Your task to perform on an android device: empty trash in google photos Image 0: 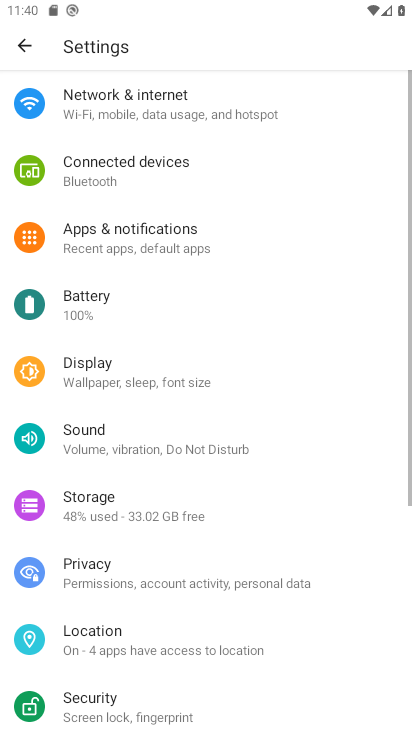
Step 0: press home button
Your task to perform on an android device: empty trash in google photos Image 1: 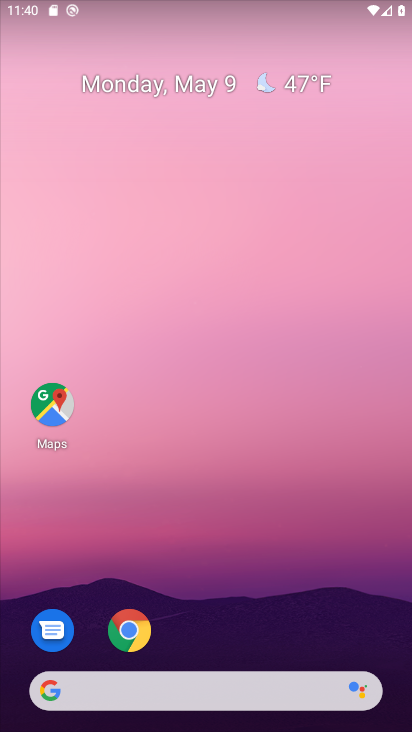
Step 1: drag from (208, 648) to (80, 165)
Your task to perform on an android device: empty trash in google photos Image 2: 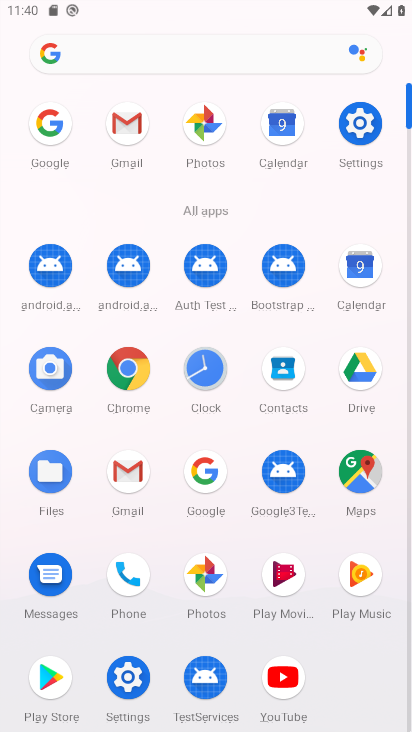
Step 2: click (223, 128)
Your task to perform on an android device: empty trash in google photos Image 3: 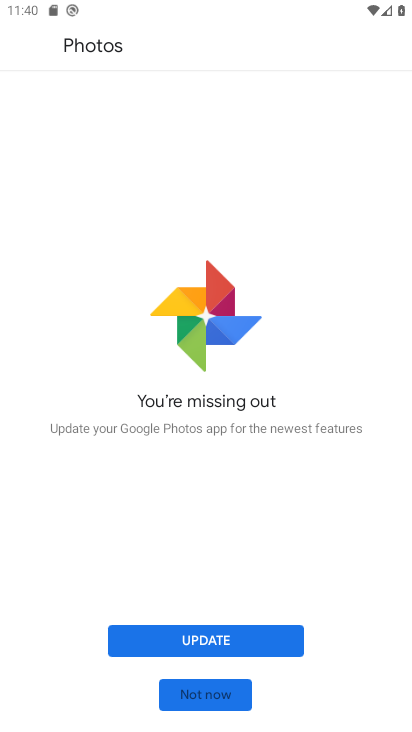
Step 3: click (219, 701)
Your task to perform on an android device: empty trash in google photos Image 4: 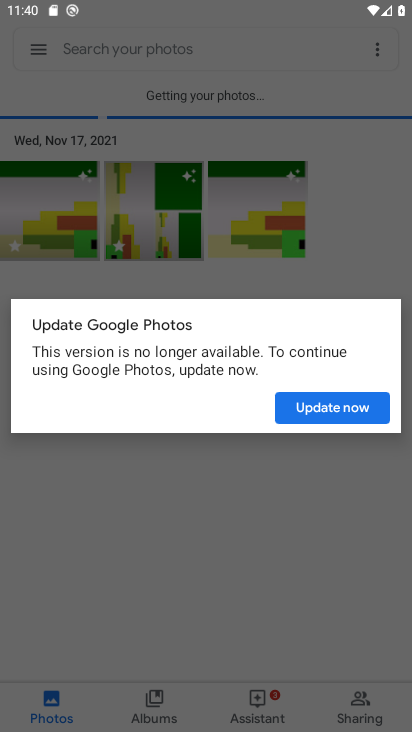
Step 4: press back button
Your task to perform on an android device: empty trash in google photos Image 5: 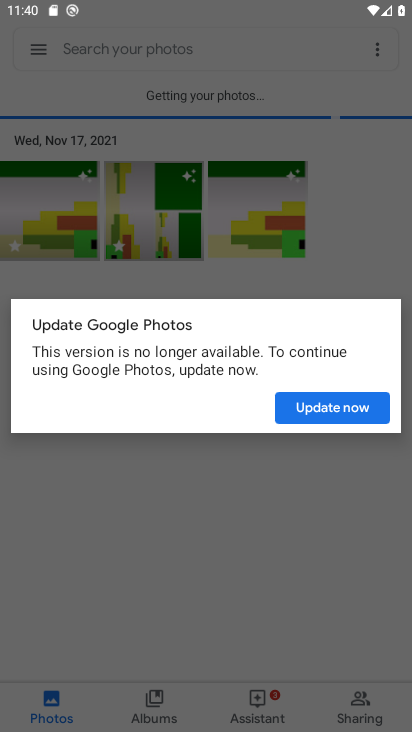
Step 5: click (240, 418)
Your task to perform on an android device: empty trash in google photos Image 6: 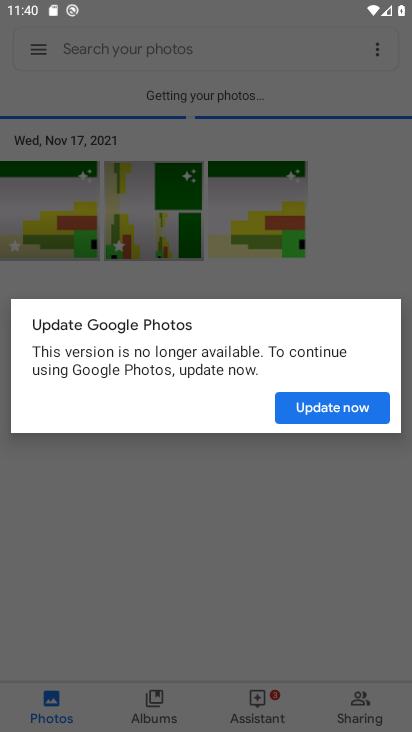
Step 6: click (293, 413)
Your task to perform on an android device: empty trash in google photos Image 7: 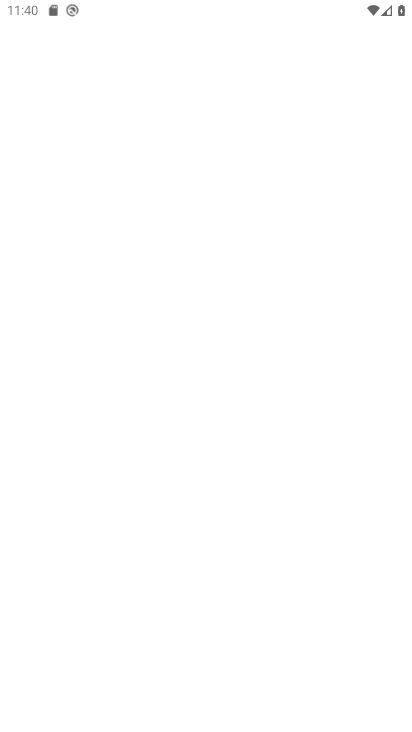
Step 7: press back button
Your task to perform on an android device: empty trash in google photos Image 8: 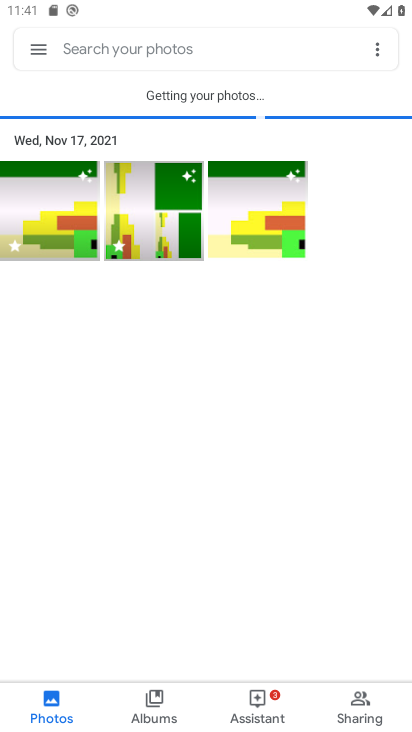
Step 8: click (35, 49)
Your task to perform on an android device: empty trash in google photos Image 9: 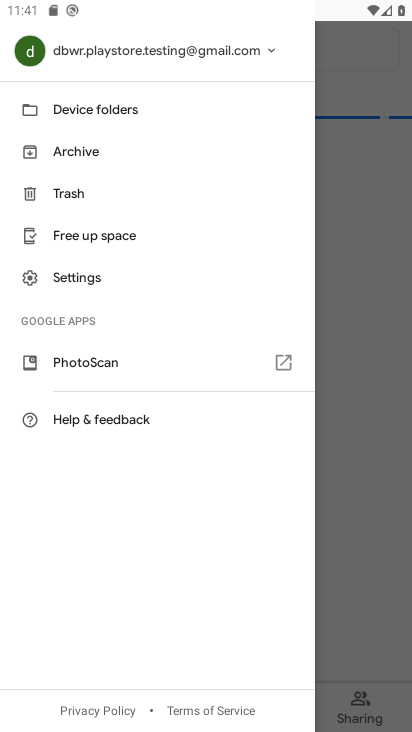
Step 9: click (64, 194)
Your task to perform on an android device: empty trash in google photos Image 10: 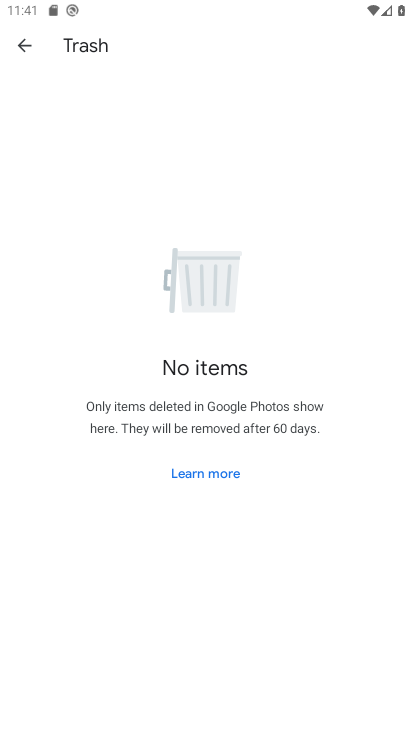
Step 10: click (219, 339)
Your task to perform on an android device: empty trash in google photos Image 11: 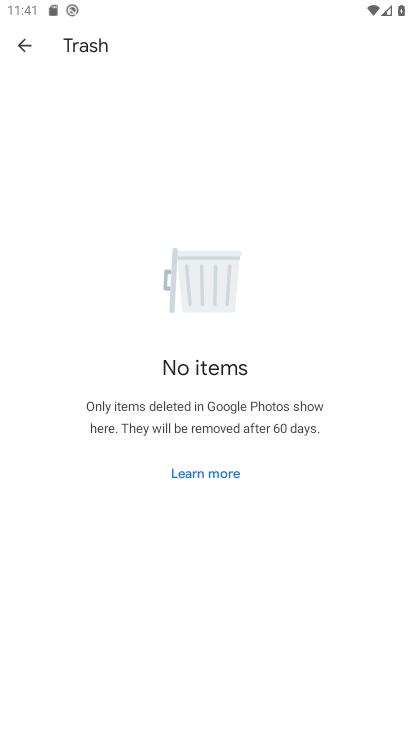
Step 11: task complete